Your task to perform on an android device: When is my next appointment? Image 0: 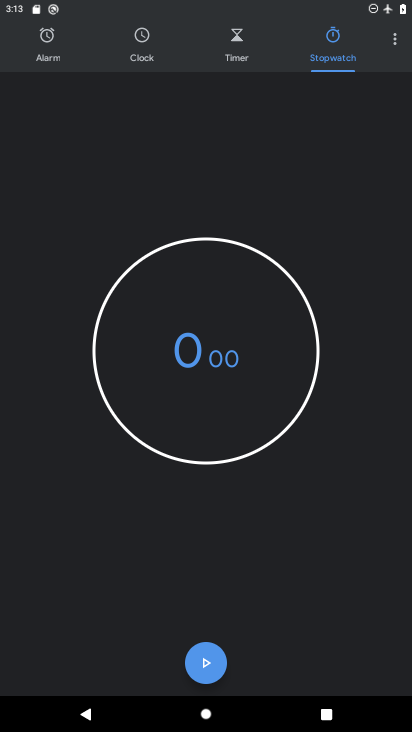
Step 0: press home button
Your task to perform on an android device: When is my next appointment? Image 1: 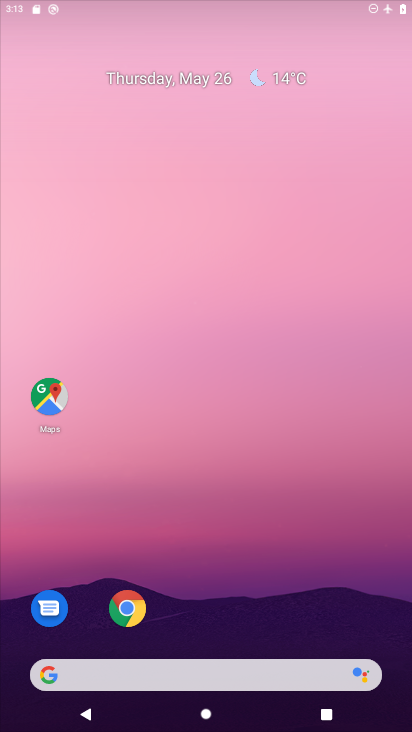
Step 1: drag from (284, 570) to (305, 92)
Your task to perform on an android device: When is my next appointment? Image 2: 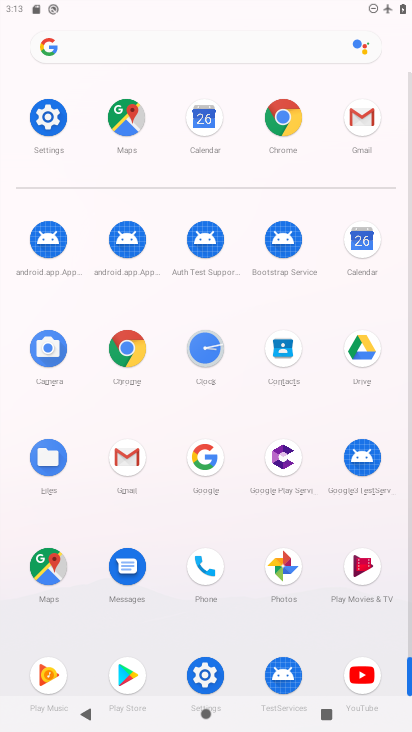
Step 2: click (354, 245)
Your task to perform on an android device: When is my next appointment? Image 3: 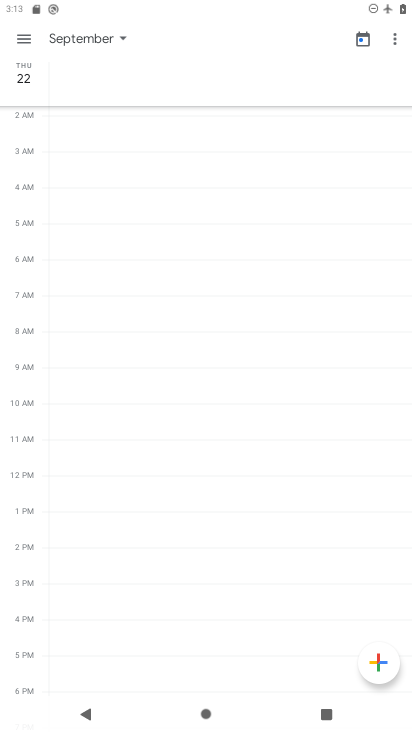
Step 3: click (67, 39)
Your task to perform on an android device: When is my next appointment? Image 4: 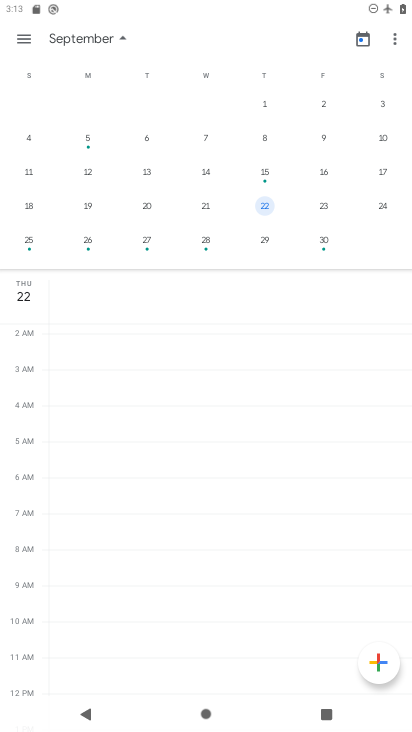
Step 4: click (322, 220)
Your task to perform on an android device: When is my next appointment? Image 5: 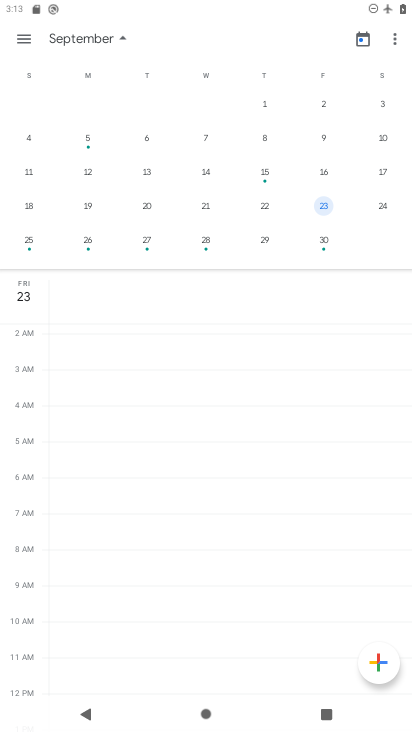
Step 5: task complete